Your task to perform on an android device: change the upload size in google photos Image 0: 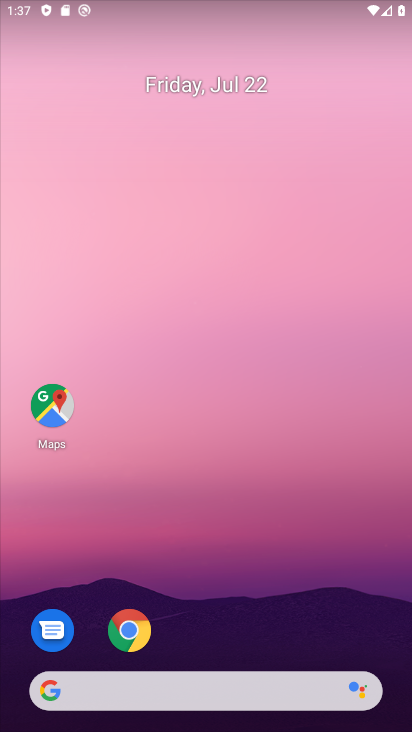
Step 0: drag from (205, 642) to (262, 86)
Your task to perform on an android device: change the upload size in google photos Image 1: 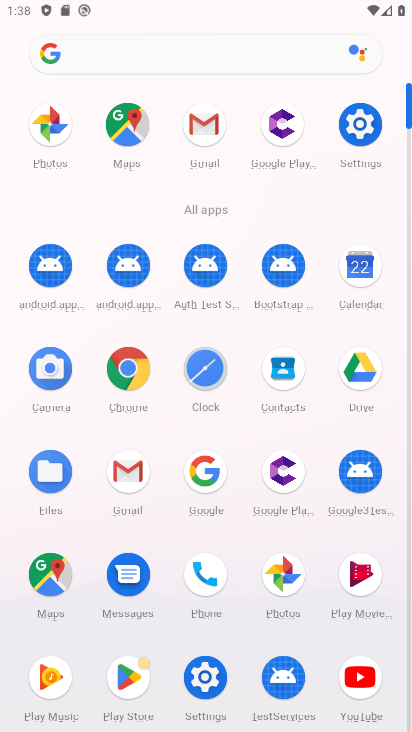
Step 1: click (284, 579)
Your task to perform on an android device: change the upload size in google photos Image 2: 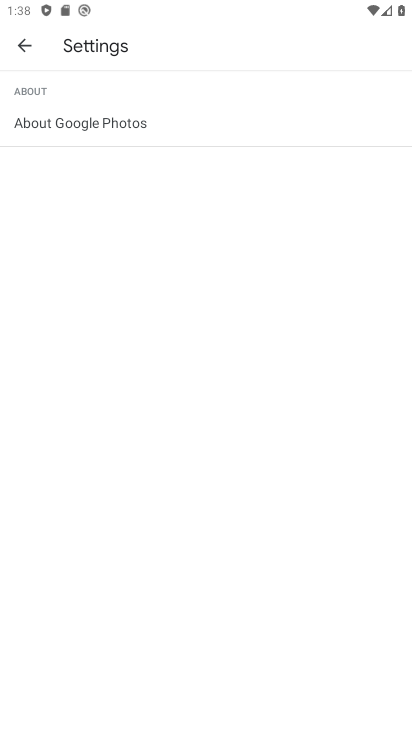
Step 2: press back button
Your task to perform on an android device: change the upload size in google photos Image 3: 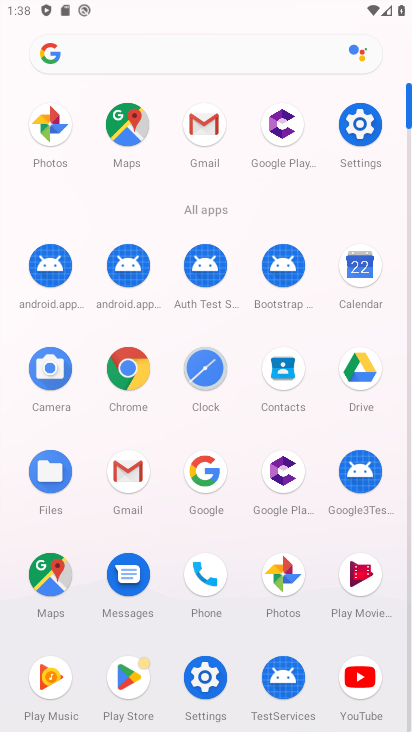
Step 3: click (288, 572)
Your task to perform on an android device: change the upload size in google photos Image 4: 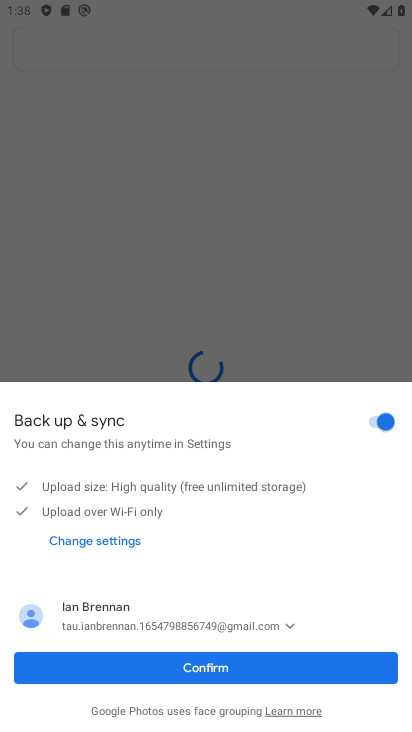
Step 4: click (200, 671)
Your task to perform on an android device: change the upload size in google photos Image 5: 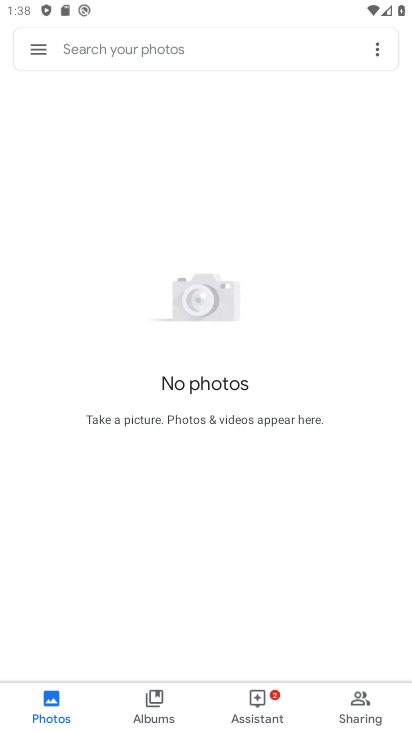
Step 5: click (40, 47)
Your task to perform on an android device: change the upload size in google photos Image 6: 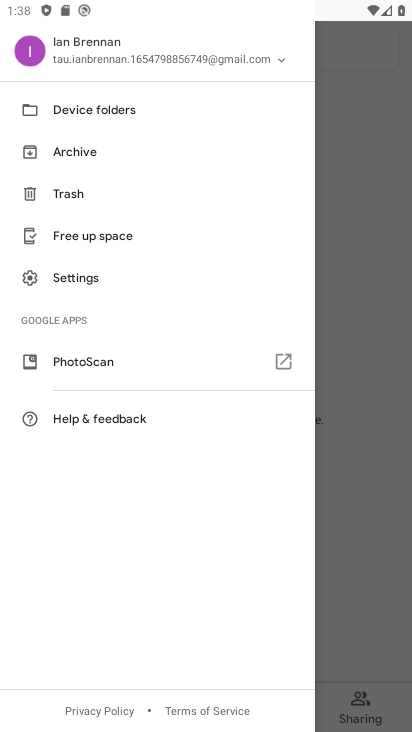
Step 6: click (97, 280)
Your task to perform on an android device: change the upload size in google photos Image 7: 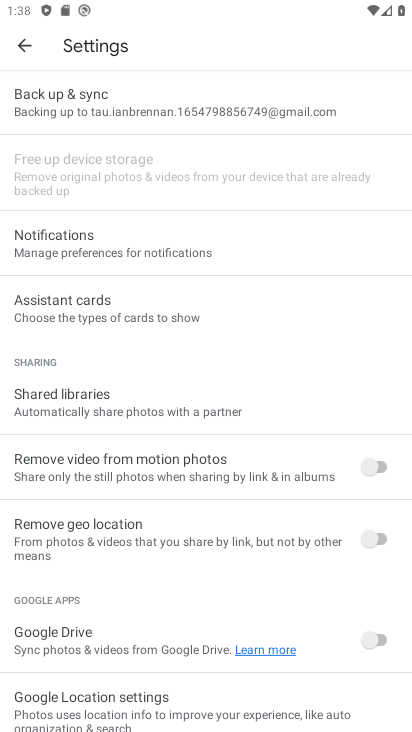
Step 7: click (114, 95)
Your task to perform on an android device: change the upload size in google photos Image 8: 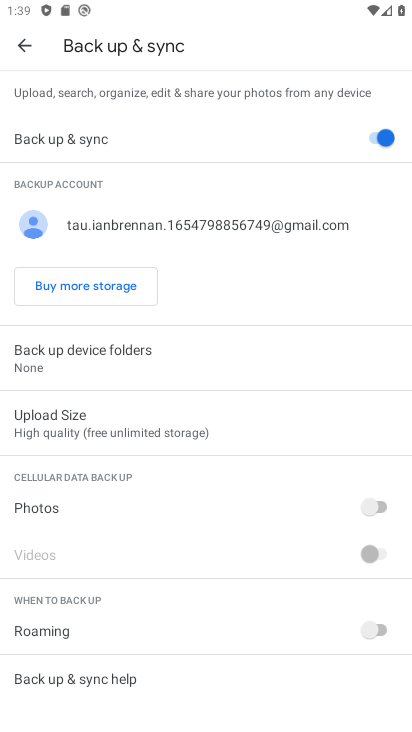
Step 8: task complete